Your task to perform on an android device: turn on priority inbox in the gmail app Image 0: 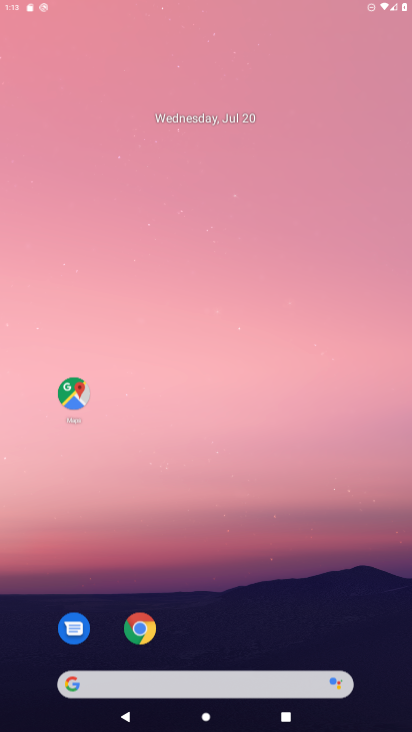
Step 0: click (221, 196)
Your task to perform on an android device: turn on priority inbox in the gmail app Image 1: 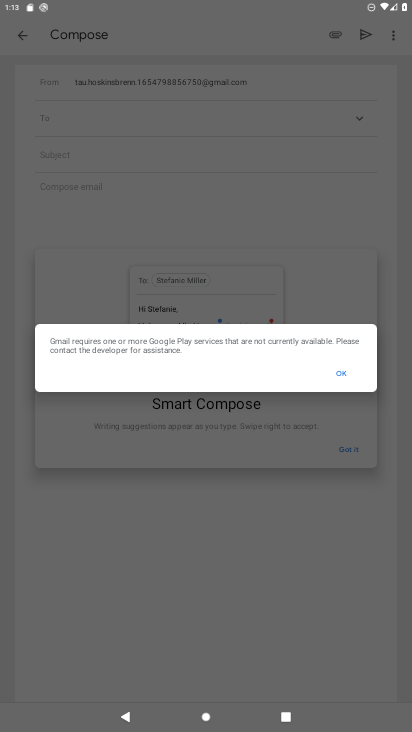
Step 1: click (339, 370)
Your task to perform on an android device: turn on priority inbox in the gmail app Image 2: 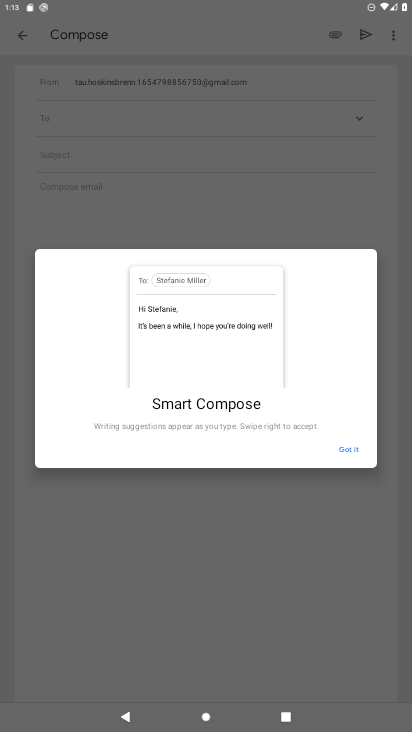
Step 2: click (349, 454)
Your task to perform on an android device: turn on priority inbox in the gmail app Image 3: 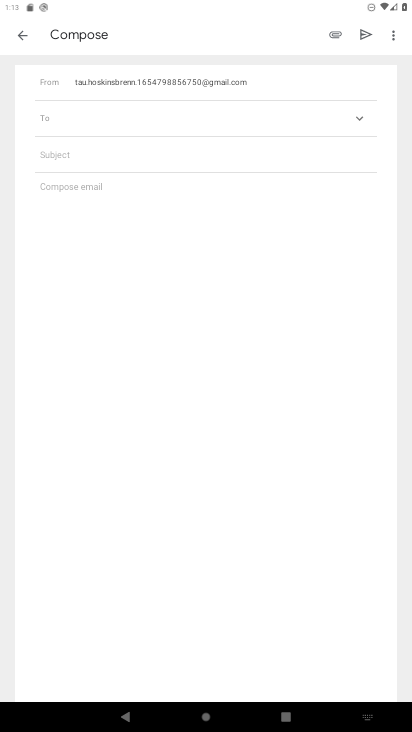
Step 3: click (25, 37)
Your task to perform on an android device: turn on priority inbox in the gmail app Image 4: 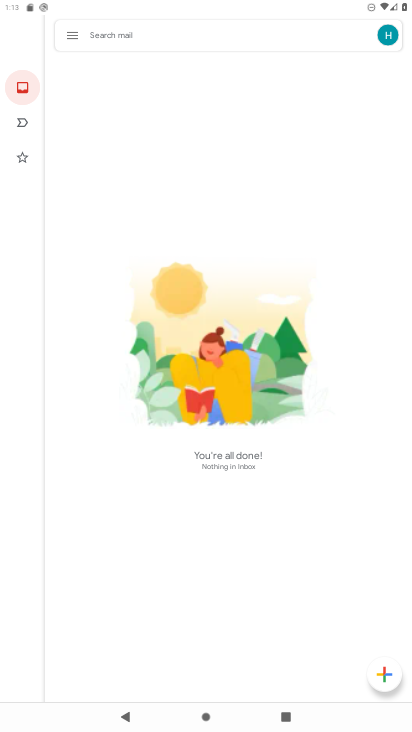
Step 4: press back button
Your task to perform on an android device: turn on priority inbox in the gmail app Image 5: 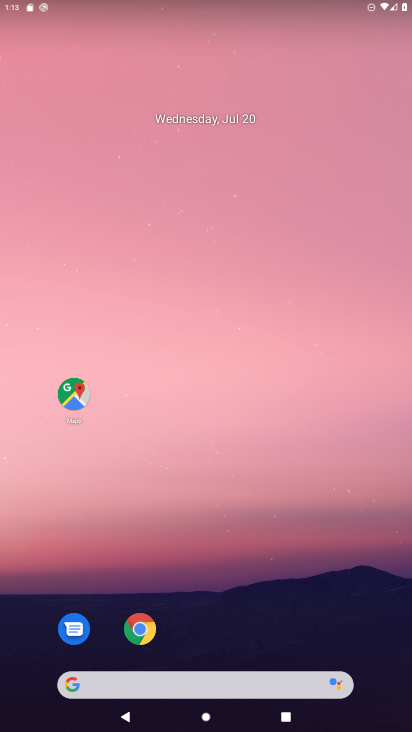
Step 5: click (187, 201)
Your task to perform on an android device: turn on priority inbox in the gmail app Image 6: 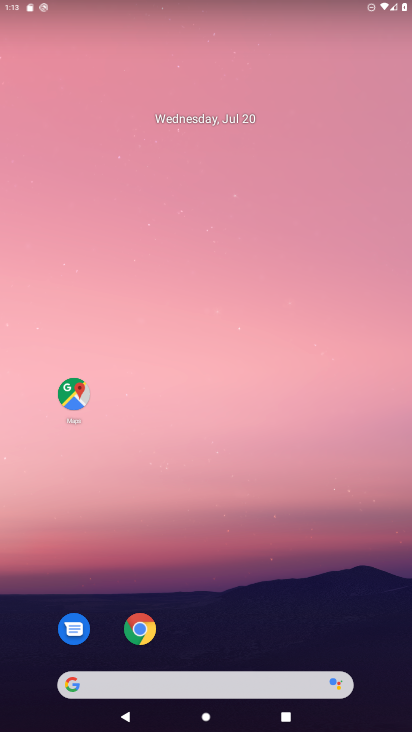
Step 6: drag from (164, 638) to (167, 173)
Your task to perform on an android device: turn on priority inbox in the gmail app Image 7: 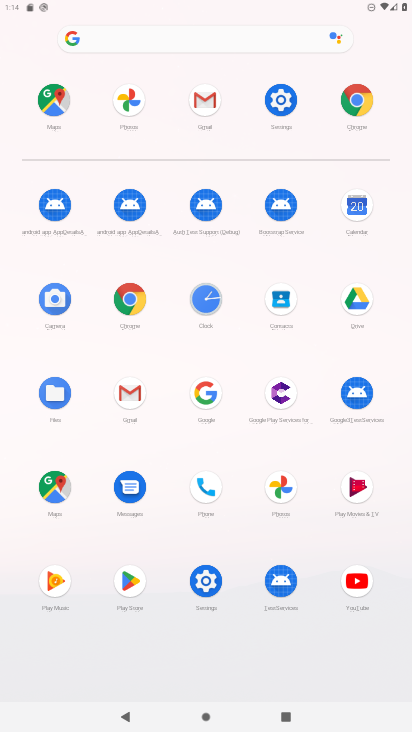
Step 7: click (123, 394)
Your task to perform on an android device: turn on priority inbox in the gmail app Image 8: 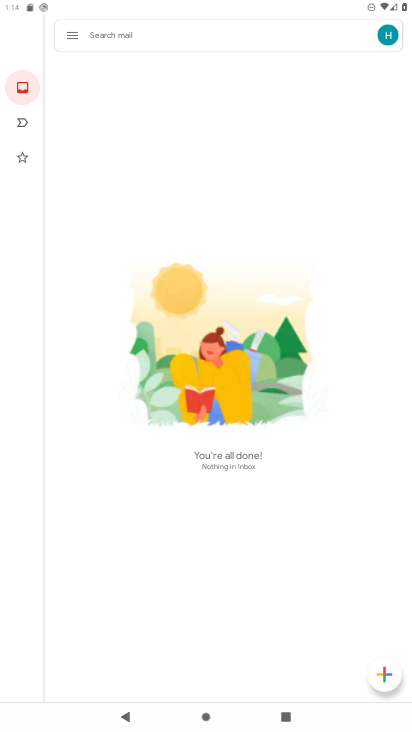
Step 8: click (74, 32)
Your task to perform on an android device: turn on priority inbox in the gmail app Image 9: 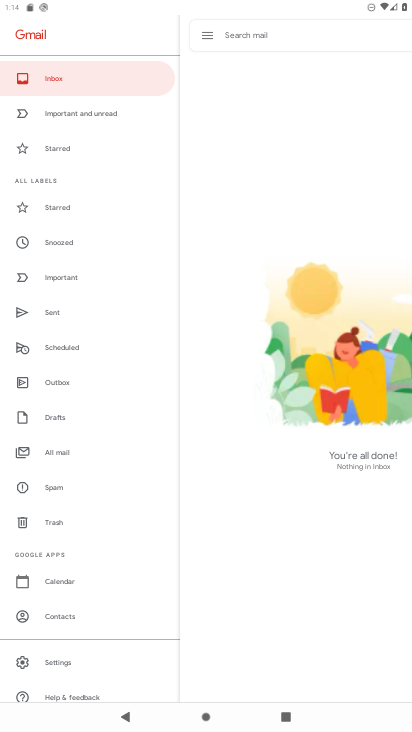
Step 9: click (50, 658)
Your task to perform on an android device: turn on priority inbox in the gmail app Image 10: 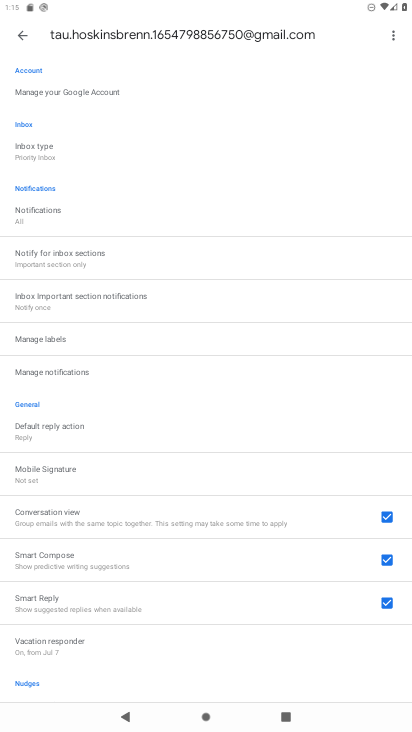
Step 10: click (50, 151)
Your task to perform on an android device: turn on priority inbox in the gmail app Image 11: 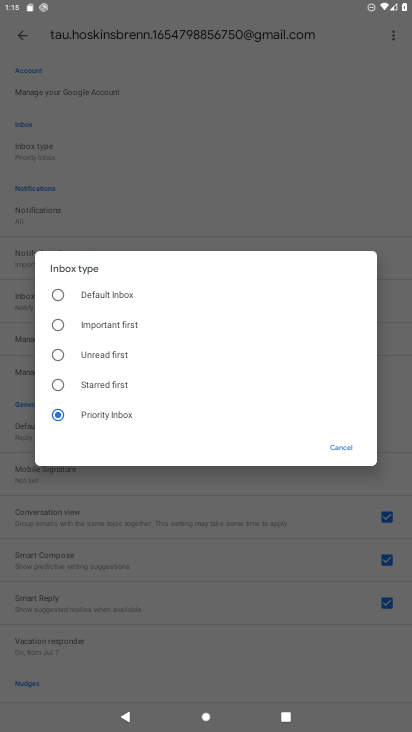
Step 11: task complete